Your task to perform on an android device: turn off notifications settings in the gmail app Image 0: 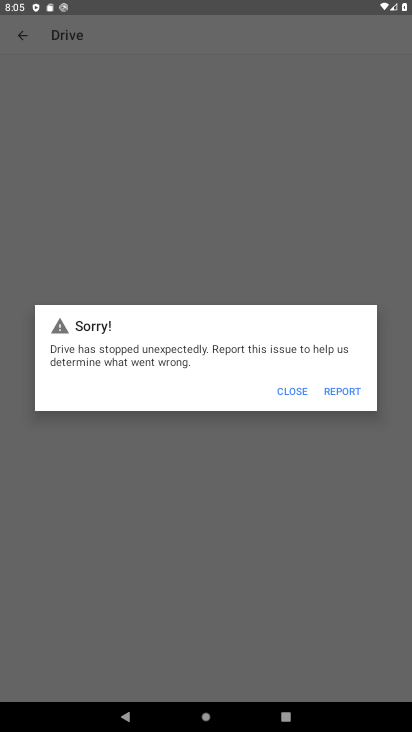
Step 0: press home button
Your task to perform on an android device: turn off notifications settings in the gmail app Image 1: 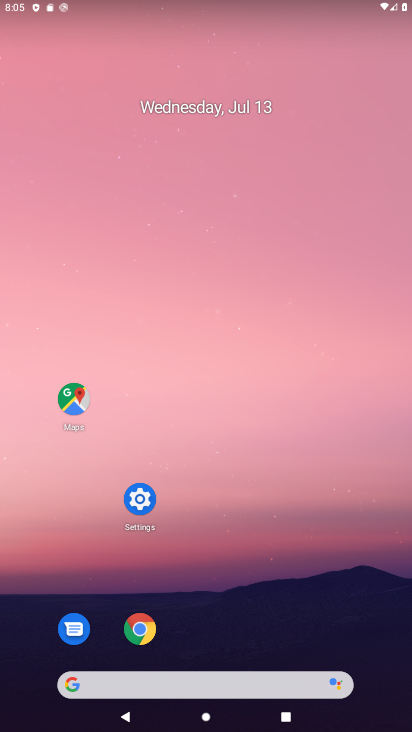
Step 1: drag from (378, 680) to (389, 167)
Your task to perform on an android device: turn off notifications settings in the gmail app Image 2: 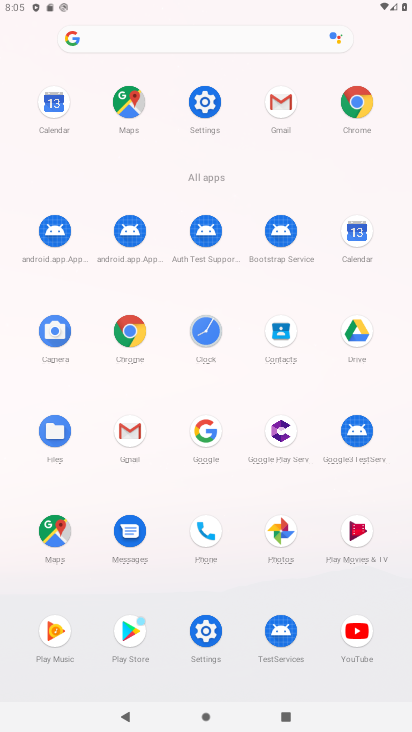
Step 2: click (275, 105)
Your task to perform on an android device: turn off notifications settings in the gmail app Image 3: 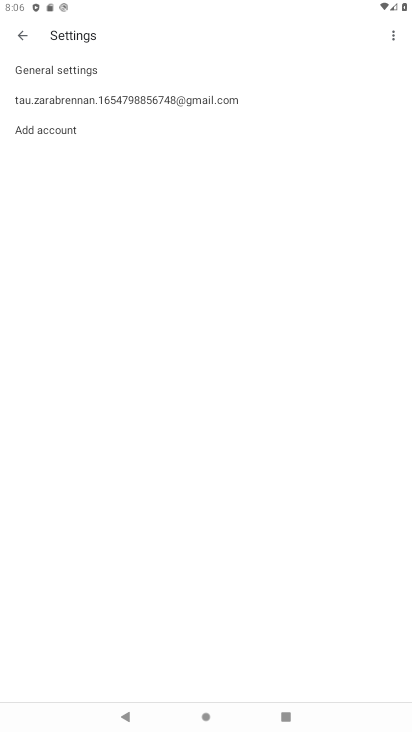
Step 3: click (46, 70)
Your task to perform on an android device: turn off notifications settings in the gmail app Image 4: 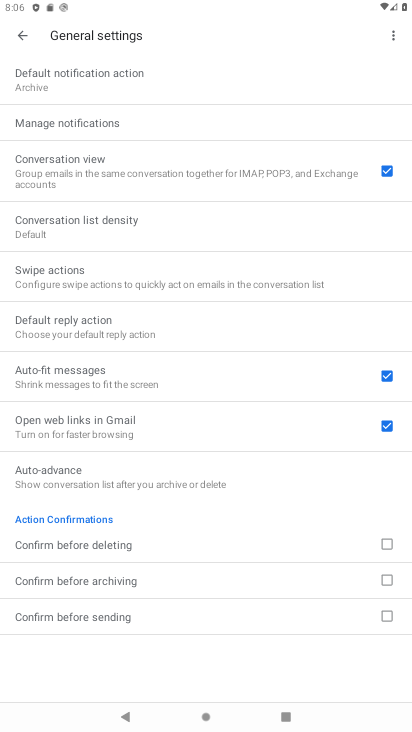
Step 4: click (61, 122)
Your task to perform on an android device: turn off notifications settings in the gmail app Image 5: 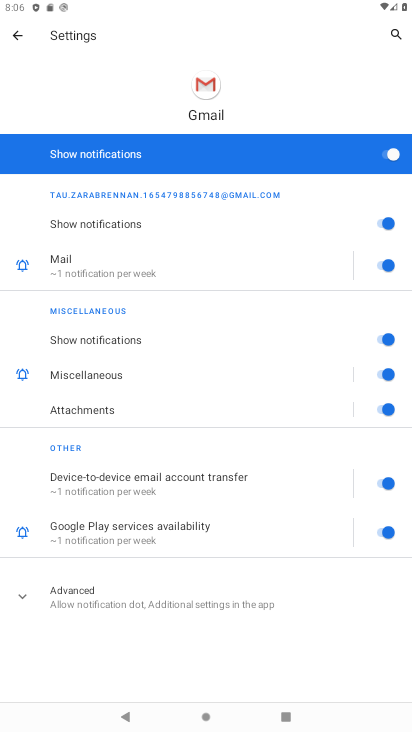
Step 5: click (391, 148)
Your task to perform on an android device: turn off notifications settings in the gmail app Image 6: 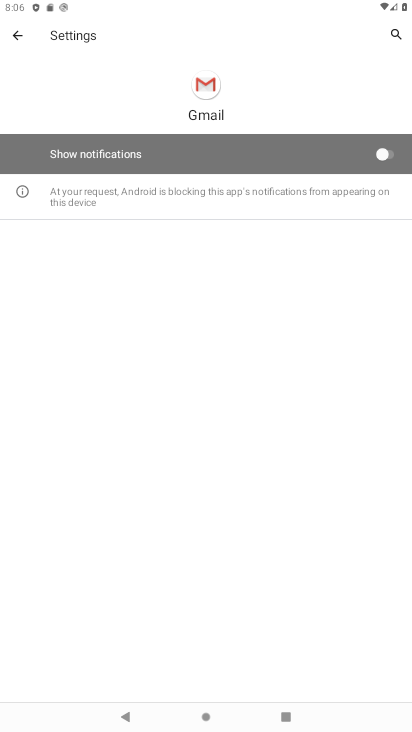
Step 6: task complete